Your task to perform on an android device: make emails show in primary in the gmail app Image 0: 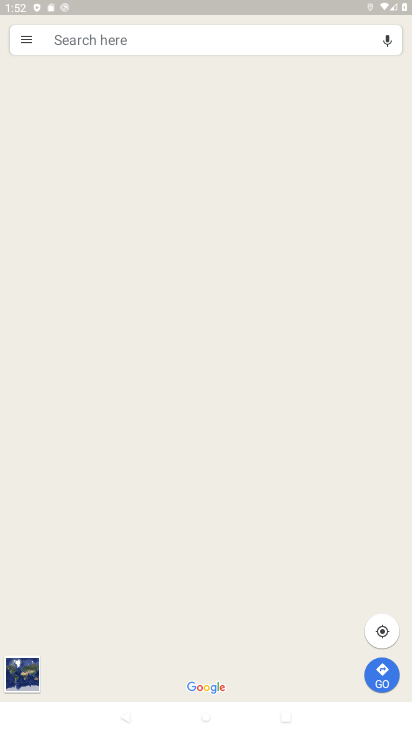
Step 0: click (135, 634)
Your task to perform on an android device: make emails show in primary in the gmail app Image 1: 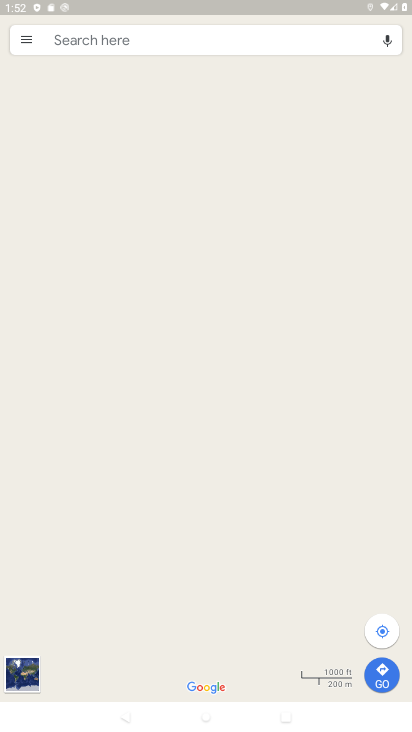
Step 1: press home button
Your task to perform on an android device: make emails show in primary in the gmail app Image 2: 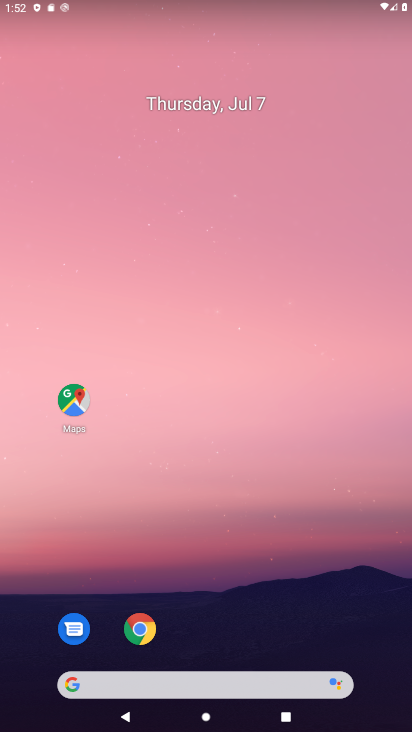
Step 2: drag from (143, 540) to (231, 117)
Your task to perform on an android device: make emails show in primary in the gmail app Image 3: 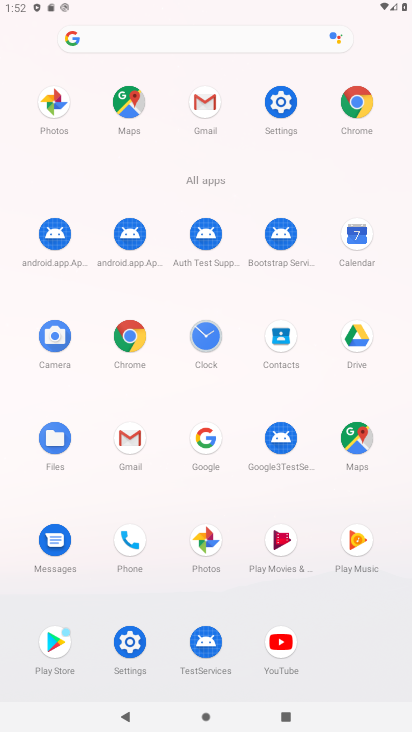
Step 3: click (133, 453)
Your task to perform on an android device: make emails show in primary in the gmail app Image 4: 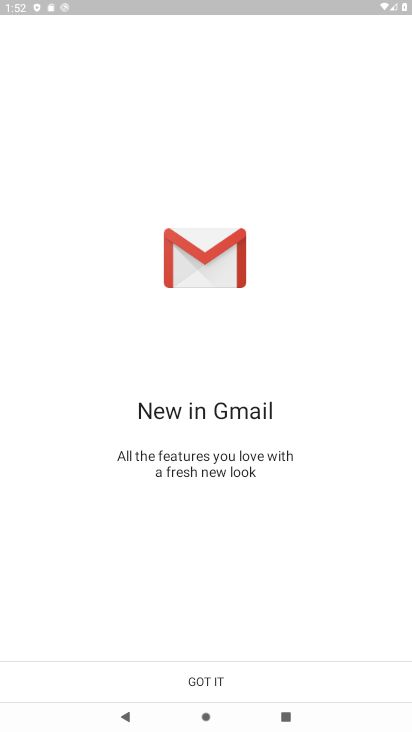
Step 4: click (227, 694)
Your task to perform on an android device: make emails show in primary in the gmail app Image 5: 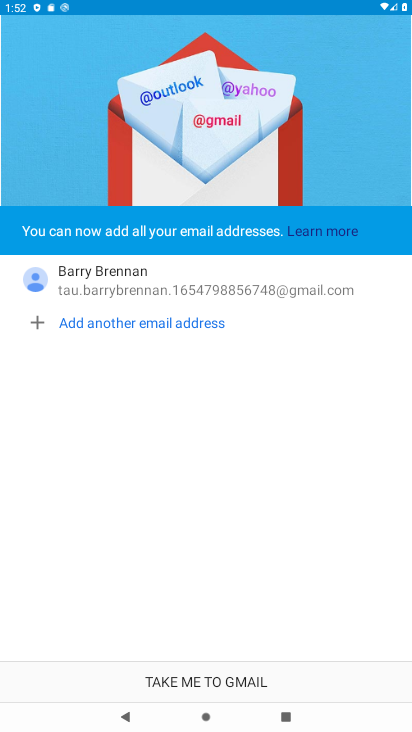
Step 5: click (227, 690)
Your task to perform on an android device: make emails show in primary in the gmail app Image 6: 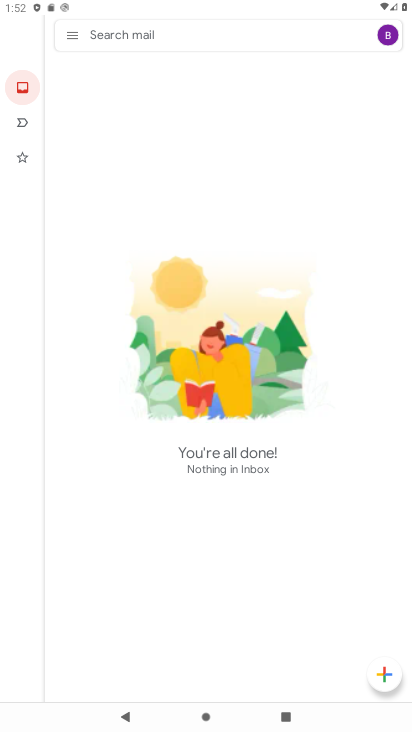
Step 6: click (76, 47)
Your task to perform on an android device: make emails show in primary in the gmail app Image 7: 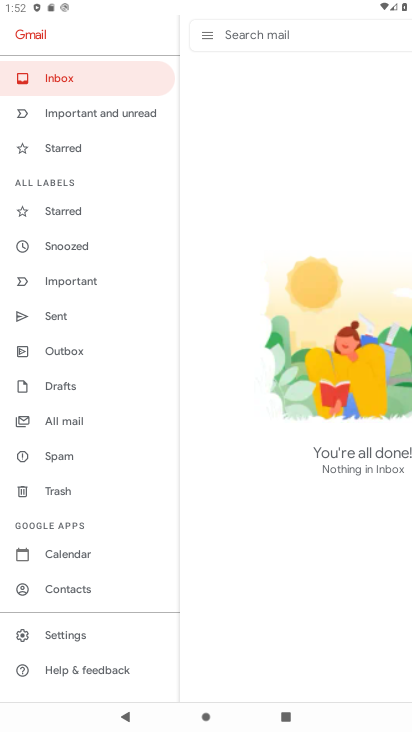
Step 7: click (95, 636)
Your task to perform on an android device: make emails show in primary in the gmail app Image 8: 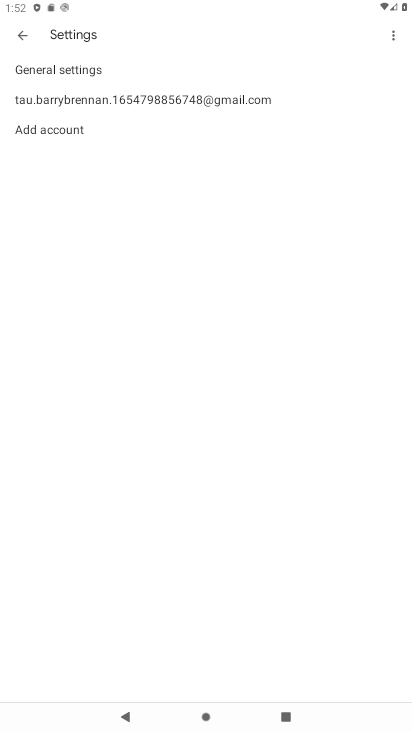
Step 8: click (213, 106)
Your task to perform on an android device: make emails show in primary in the gmail app Image 9: 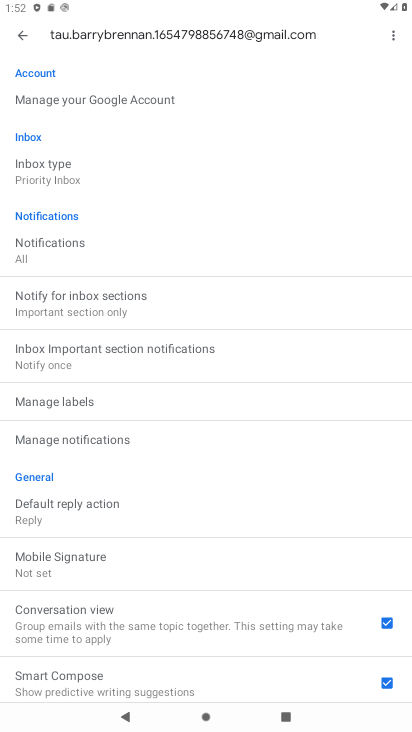
Step 9: click (129, 170)
Your task to perform on an android device: make emails show in primary in the gmail app Image 10: 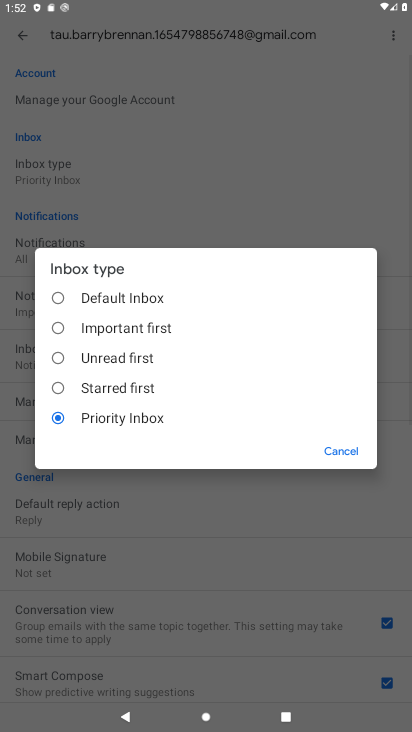
Step 10: click (129, 297)
Your task to perform on an android device: make emails show in primary in the gmail app Image 11: 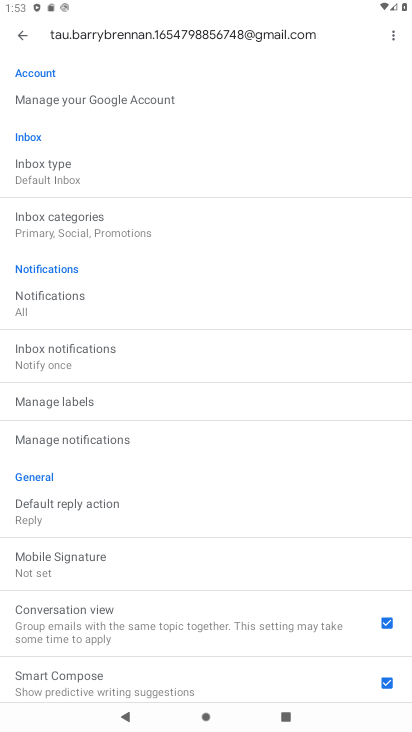
Step 11: click (151, 241)
Your task to perform on an android device: make emails show in primary in the gmail app Image 12: 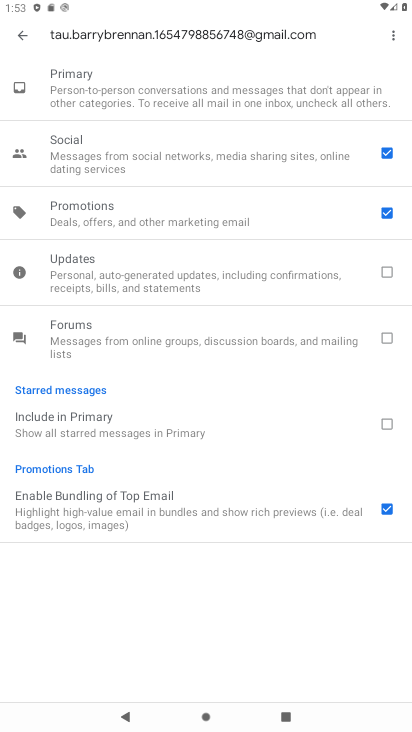
Step 12: drag from (190, 91) to (389, 431)
Your task to perform on an android device: make emails show in primary in the gmail app Image 13: 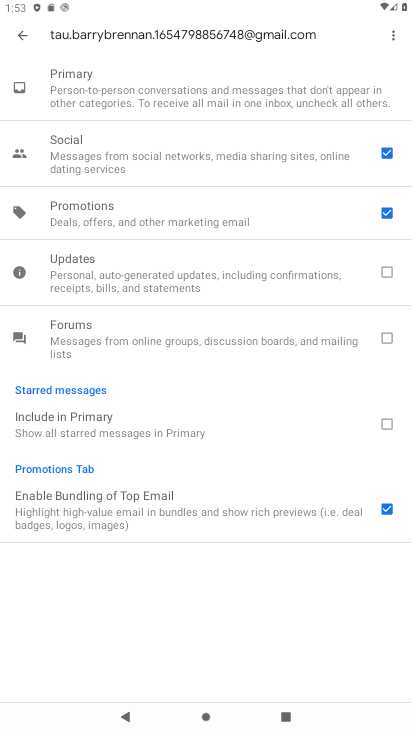
Step 13: click (382, 427)
Your task to perform on an android device: make emails show in primary in the gmail app Image 14: 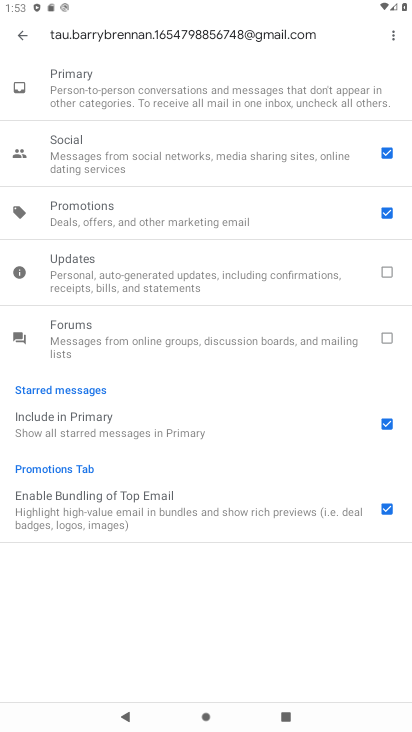
Step 14: task complete